Your task to perform on an android device: Check the news Image 0: 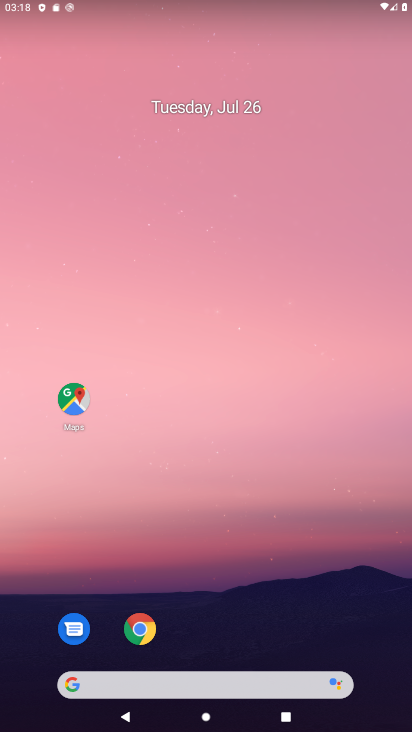
Step 0: drag from (260, 617) to (227, 132)
Your task to perform on an android device: Check the news Image 1: 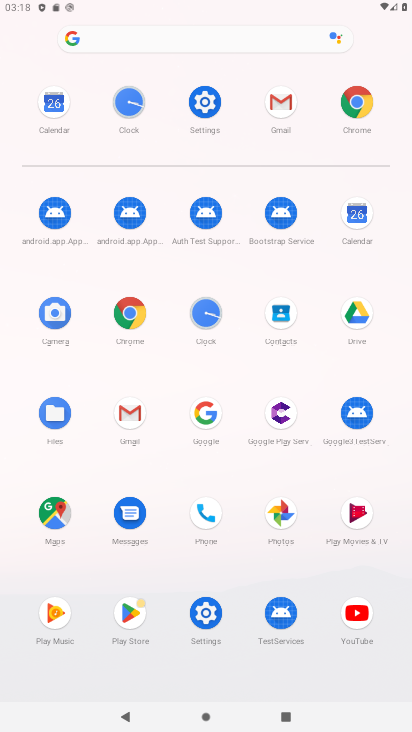
Step 1: click (131, 310)
Your task to perform on an android device: Check the news Image 2: 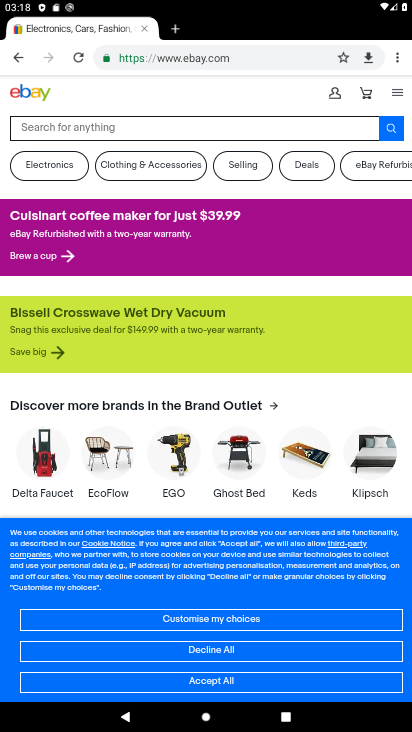
Step 2: click (199, 52)
Your task to perform on an android device: Check the news Image 3: 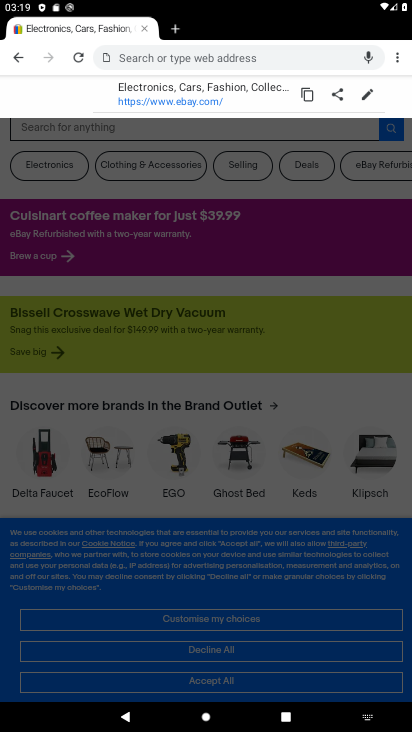
Step 3: type "Check the news"
Your task to perform on an android device: Check the news Image 4: 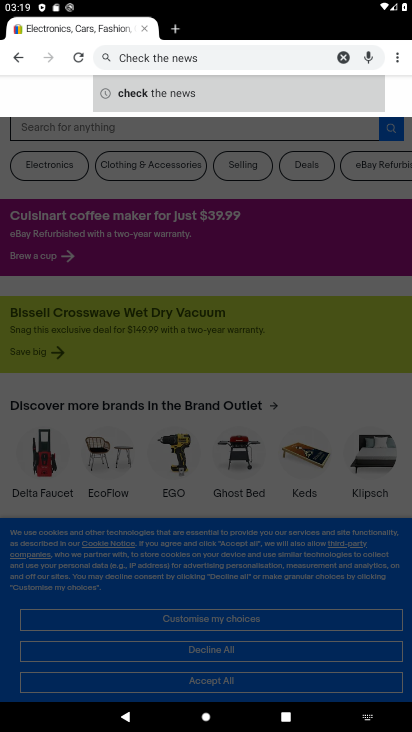
Step 4: click (172, 90)
Your task to perform on an android device: Check the news Image 5: 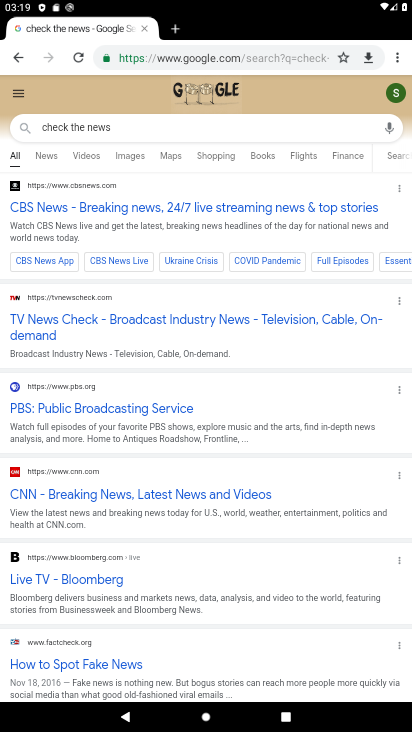
Step 5: click (47, 158)
Your task to perform on an android device: Check the news Image 6: 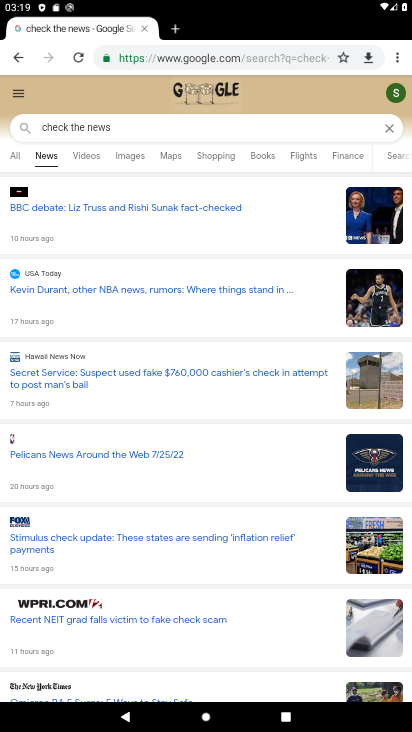
Step 6: task complete